Your task to perform on an android device: set the timer Image 0: 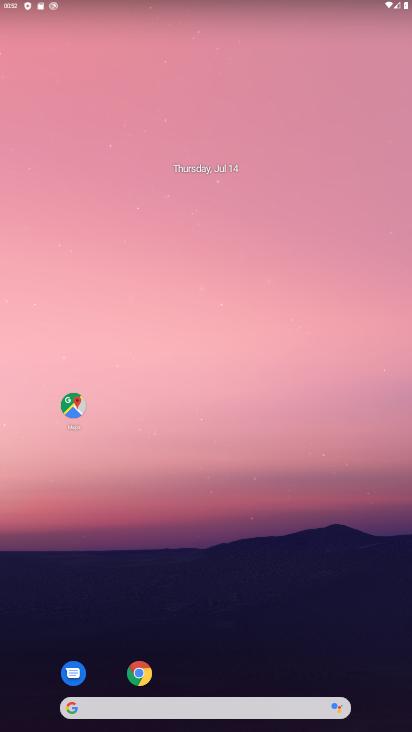
Step 0: drag from (278, 671) to (259, 197)
Your task to perform on an android device: set the timer Image 1: 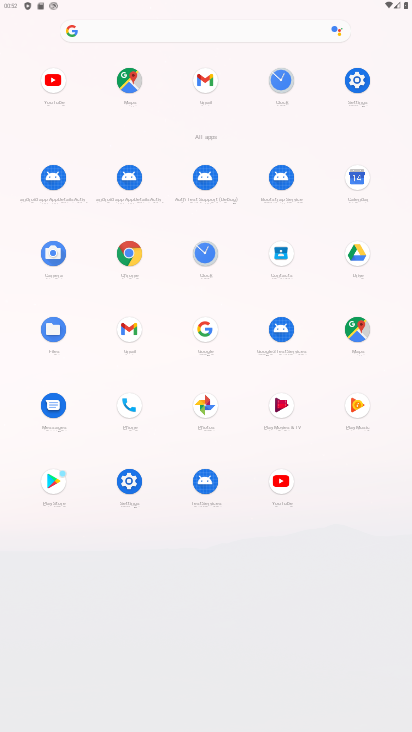
Step 1: click (347, 90)
Your task to perform on an android device: set the timer Image 2: 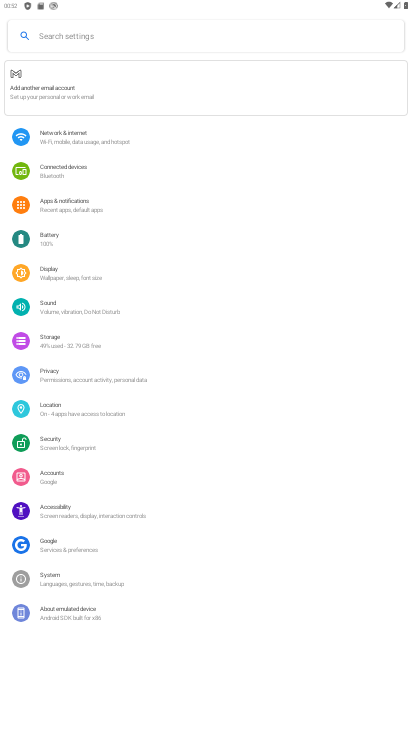
Step 2: click (73, 304)
Your task to perform on an android device: set the timer Image 3: 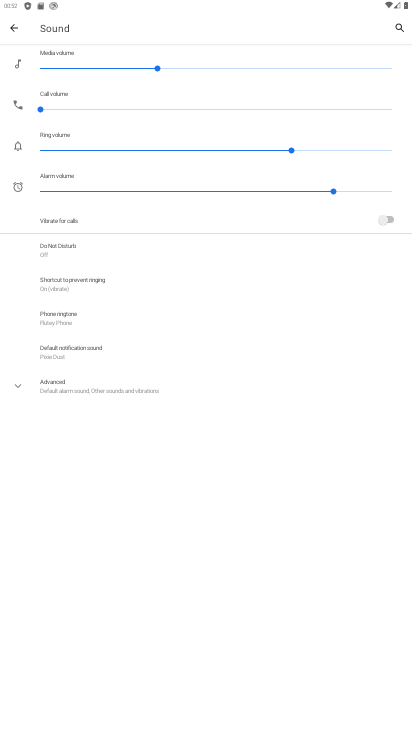
Step 3: press home button
Your task to perform on an android device: set the timer Image 4: 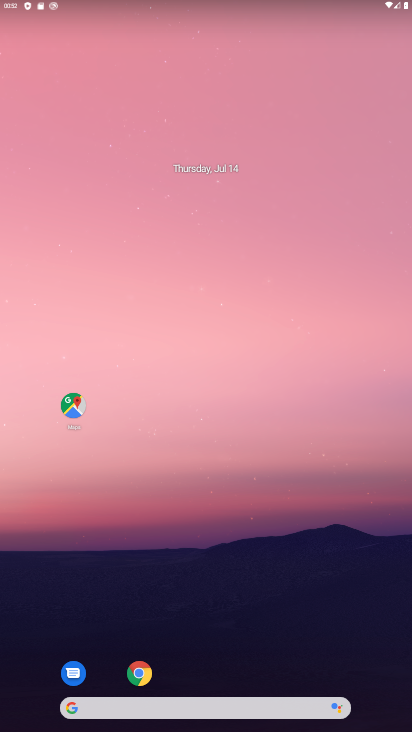
Step 4: drag from (220, 655) to (212, 238)
Your task to perform on an android device: set the timer Image 5: 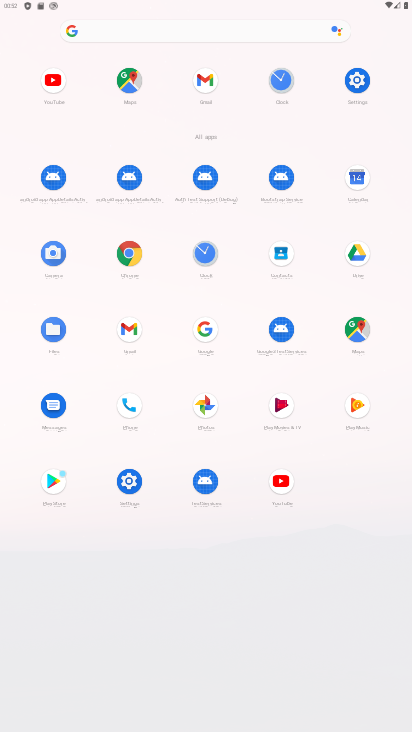
Step 5: click (279, 80)
Your task to perform on an android device: set the timer Image 6: 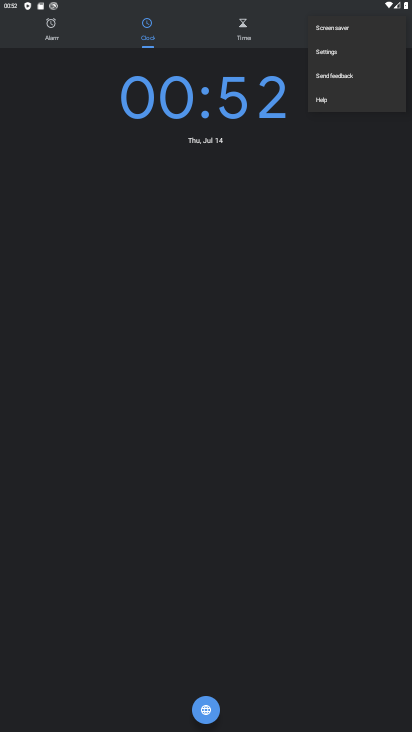
Step 6: click (245, 30)
Your task to perform on an android device: set the timer Image 7: 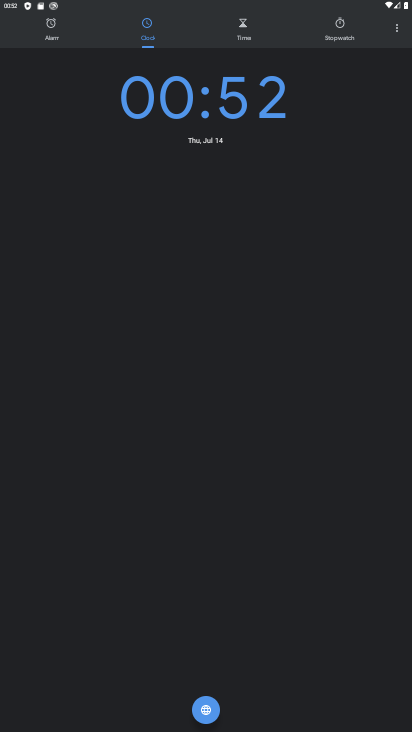
Step 7: task complete